Your task to perform on an android device: turn on the 12-hour format for clock Image 0: 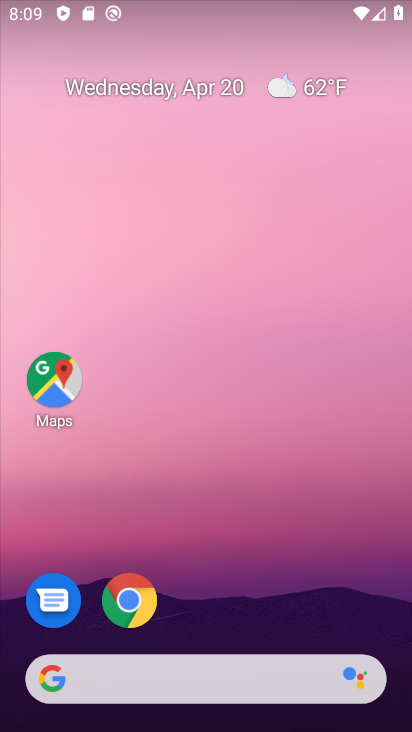
Step 0: drag from (214, 724) to (195, 98)
Your task to perform on an android device: turn on the 12-hour format for clock Image 1: 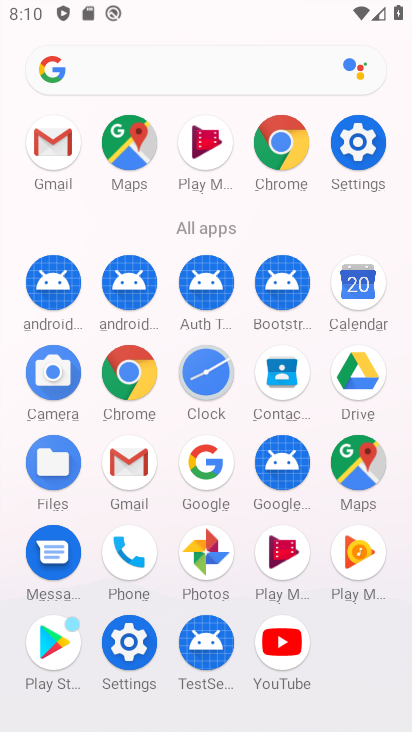
Step 1: click (209, 368)
Your task to perform on an android device: turn on the 12-hour format for clock Image 2: 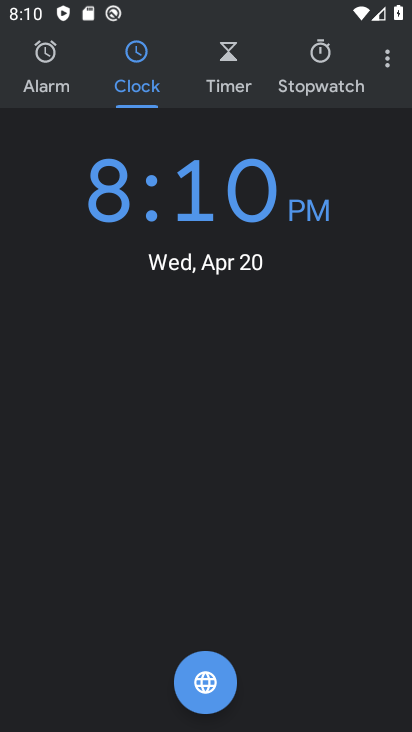
Step 2: click (386, 67)
Your task to perform on an android device: turn on the 12-hour format for clock Image 3: 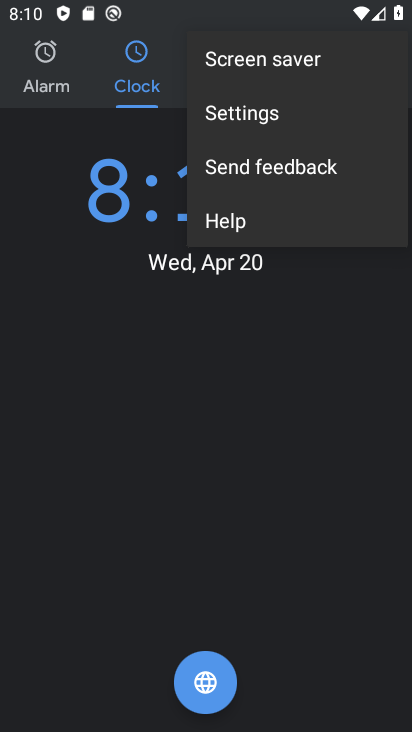
Step 3: click (238, 120)
Your task to perform on an android device: turn on the 12-hour format for clock Image 4: 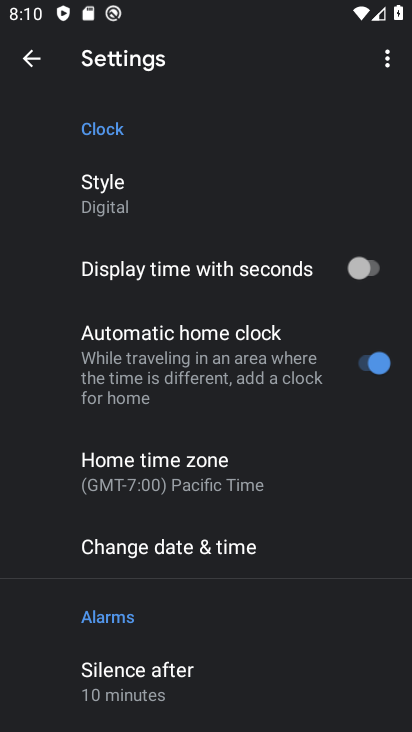
Step 4: click (167, 548)
Your task to perform on an android device: turn on the 12-hour format for clock Image 5: 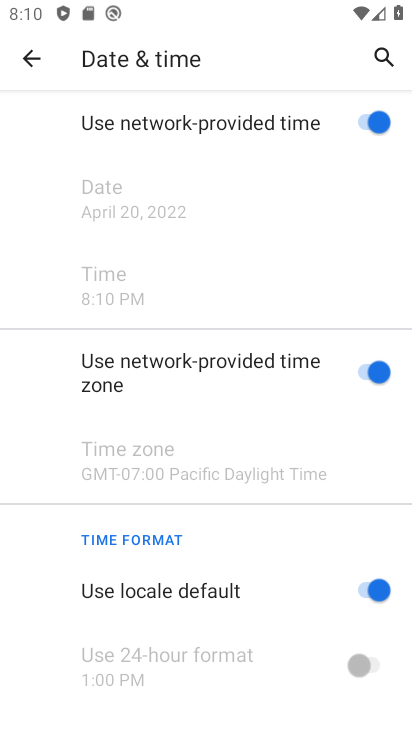
Step 5: task complete